Your task to perform on an android device: What's on my calendar tomorrow? Image 0: 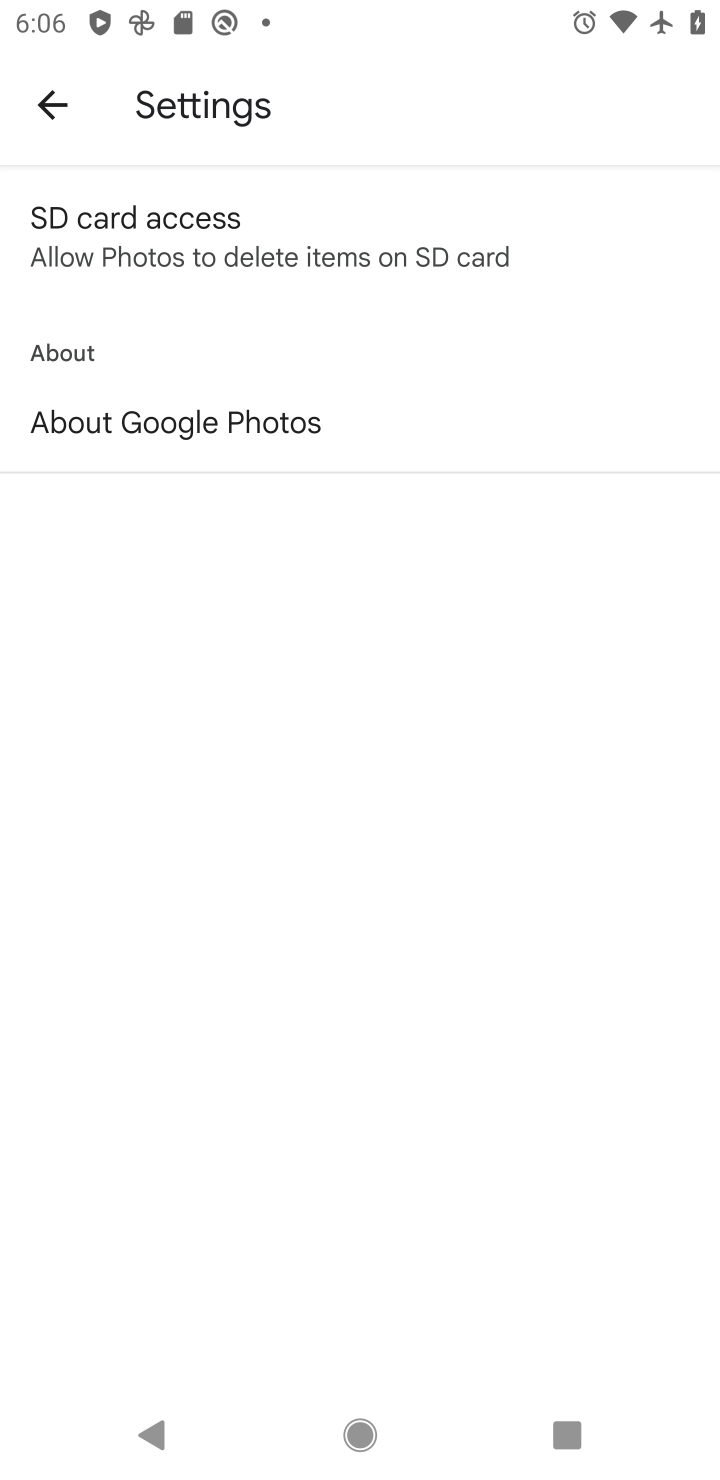
Step 0: press home button
Your task to perform on an android device: What's on my calendar tomorrow? Image 1: 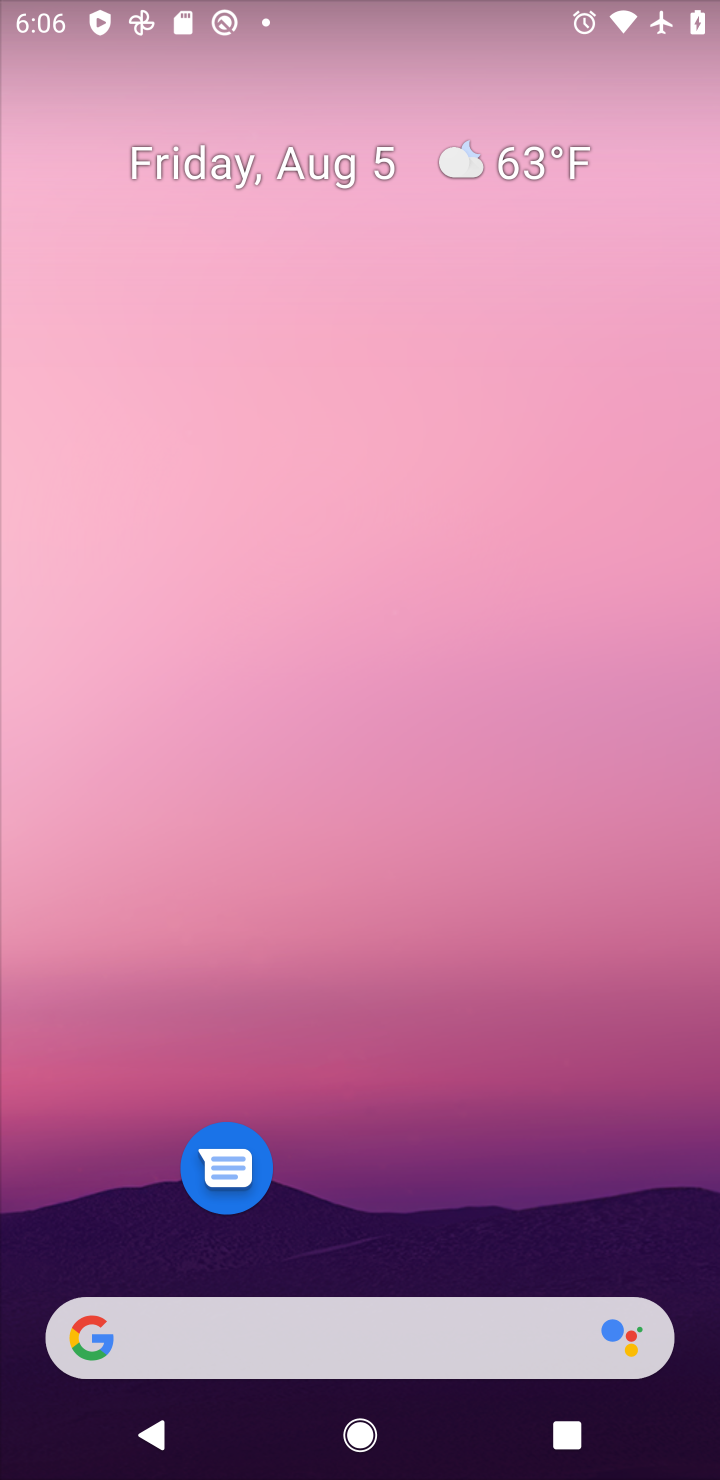
Step 1: drag from (335, 1276) to (458, 132)
Your task to perform on an android device: What's on my calendar tomorrow? Image 2: 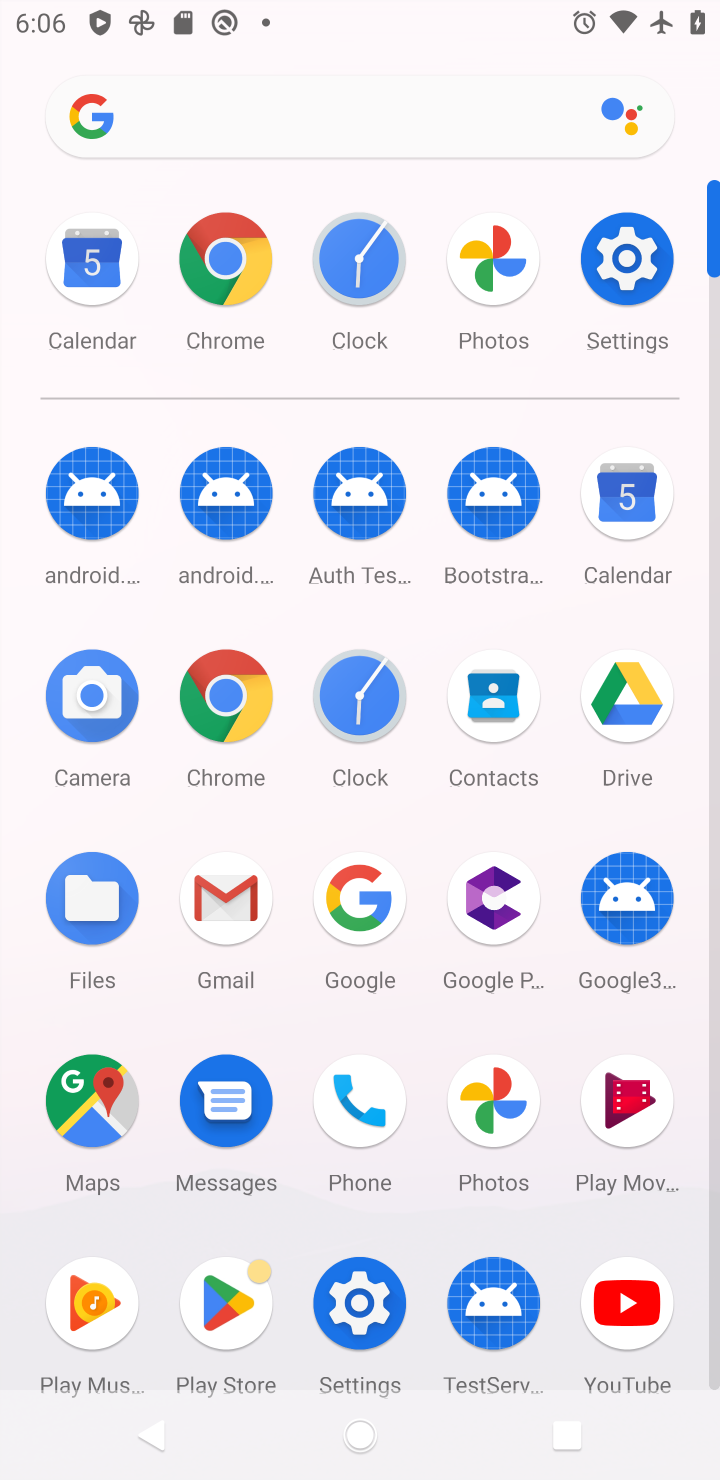
Step 2: drag from (455, 1258) to (411, 1047)
Your task to perform on an android device: What's on my calendar tomorrow? Image 3: 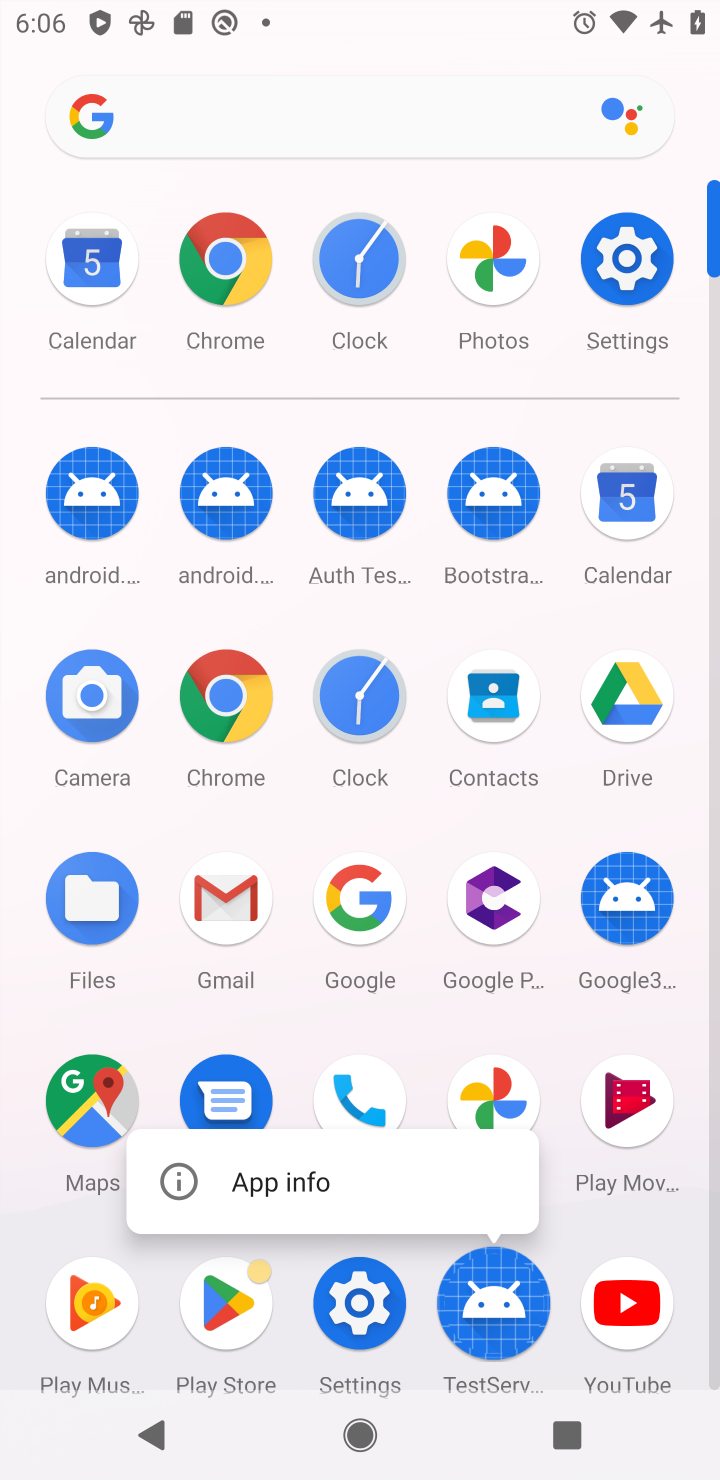
Step 3: click (608, 484)
Your task to perform on an android device: What's on my calendar tomorrow? Image 4: 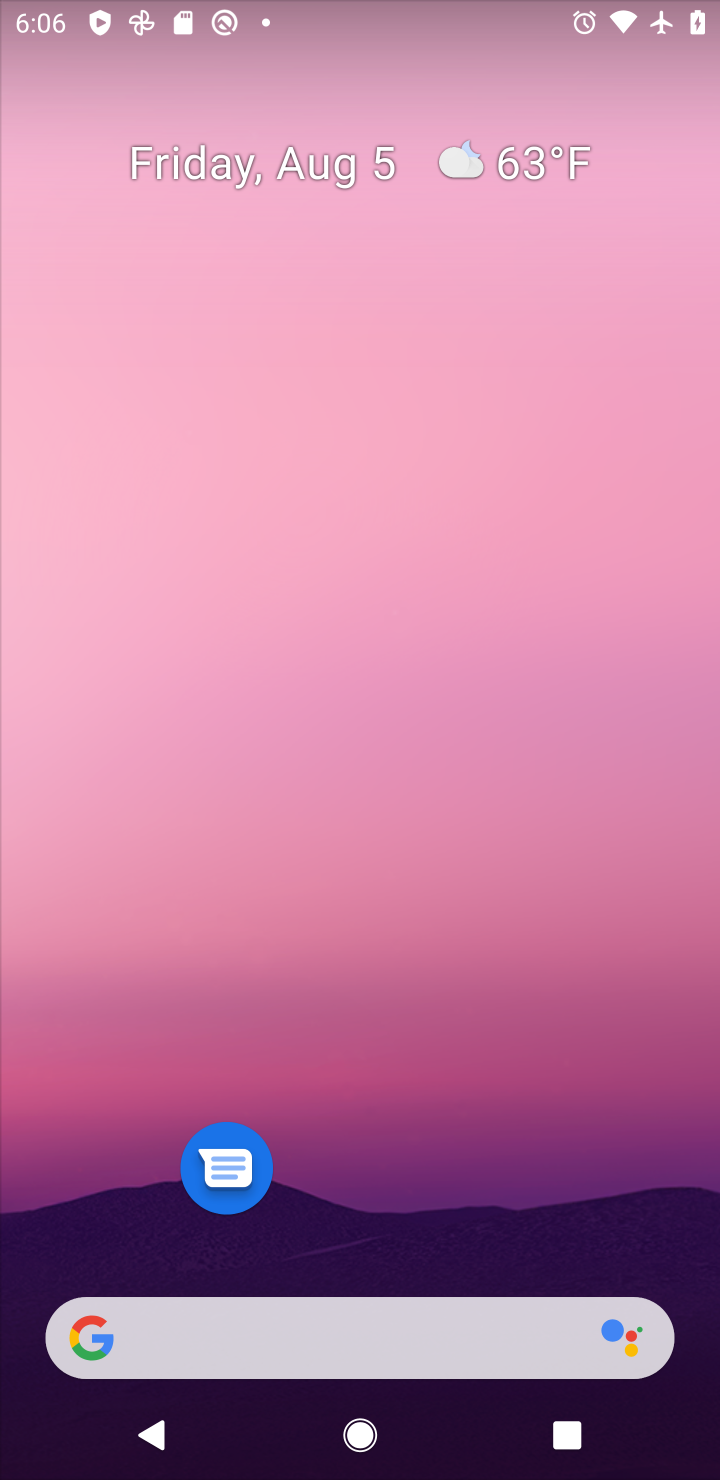
Step 4: drag from (469, 1266) to (572, 335)
Your task to perform on an android device: What's on my calendar tomorrow? Image 5: 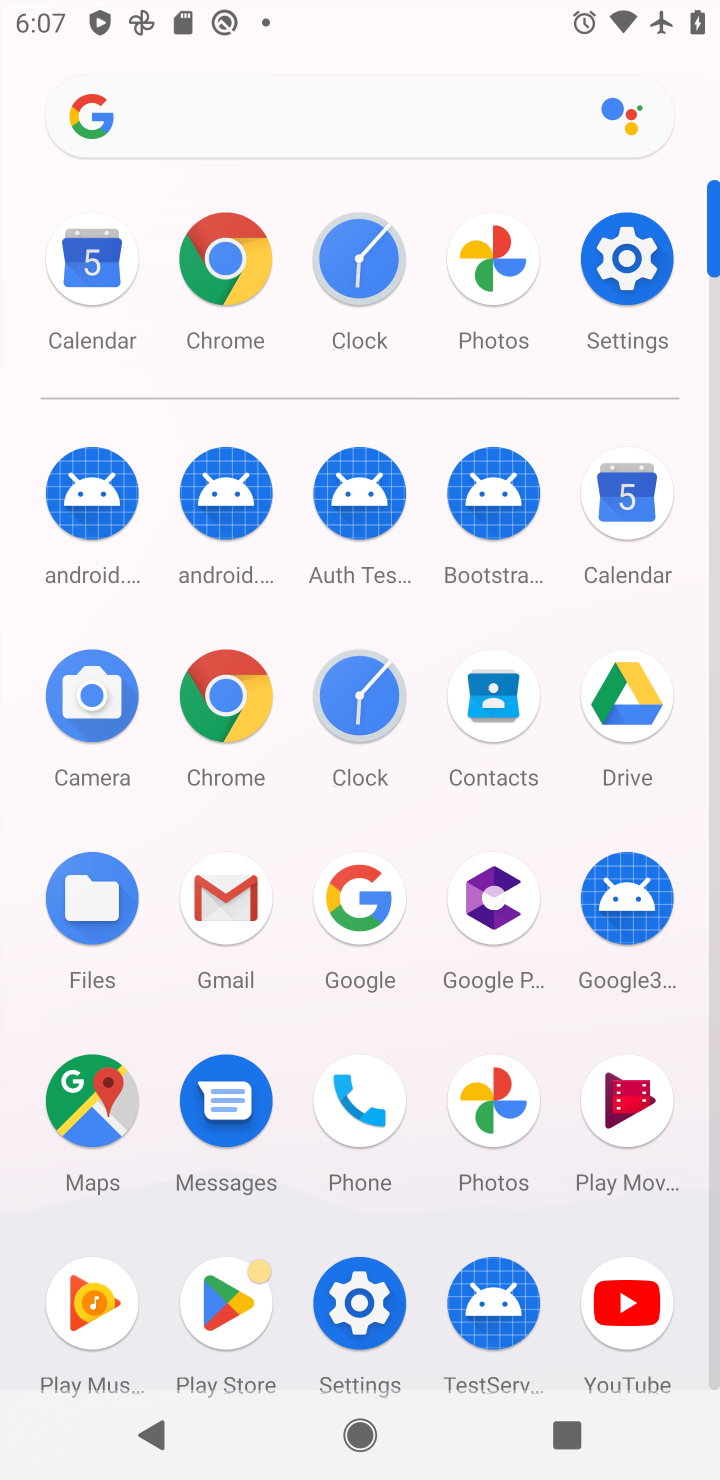
Step 5: click (630, 522)
Your task to perform on an android device: What's on my calendar tomorrow? Image 6: 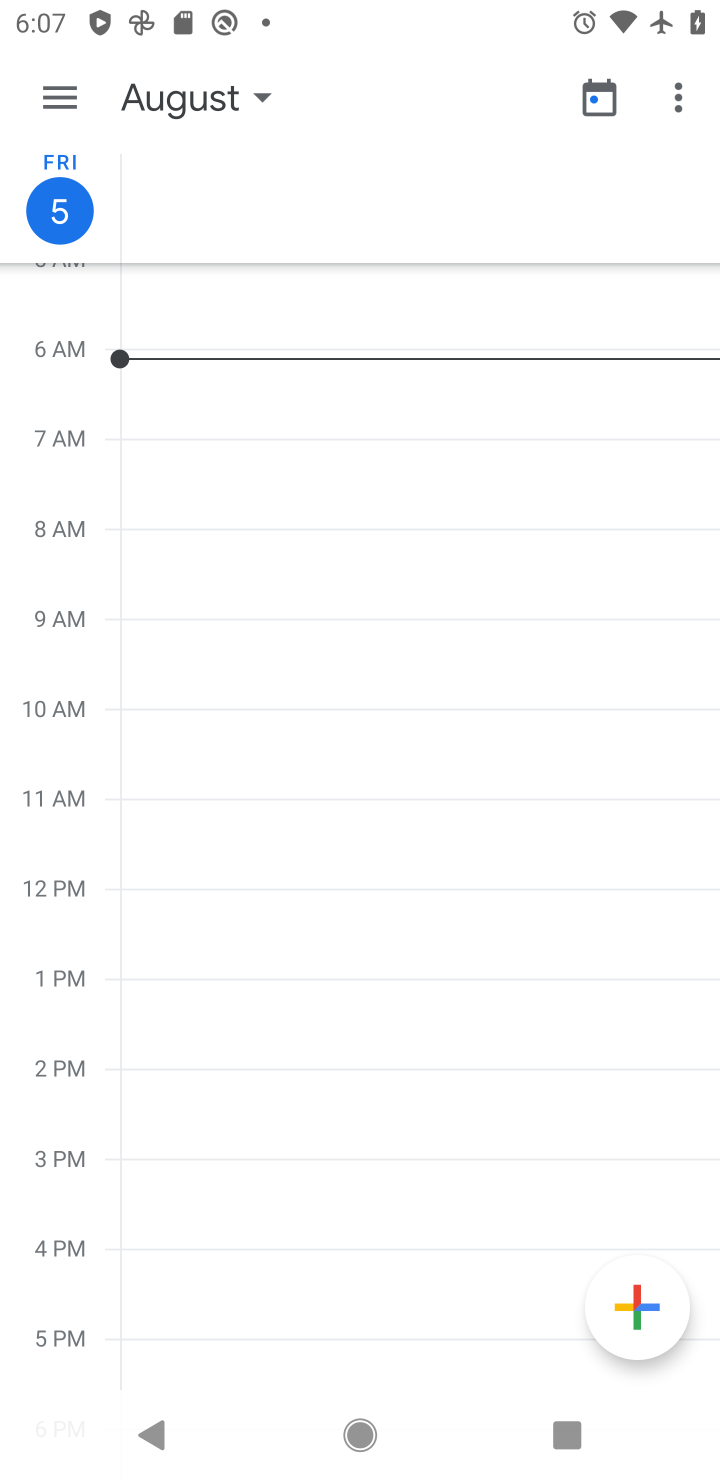
Step 6: click (248, 91)
Your task to perform on an android device: What's on my calendar tomorrow? Image 7: 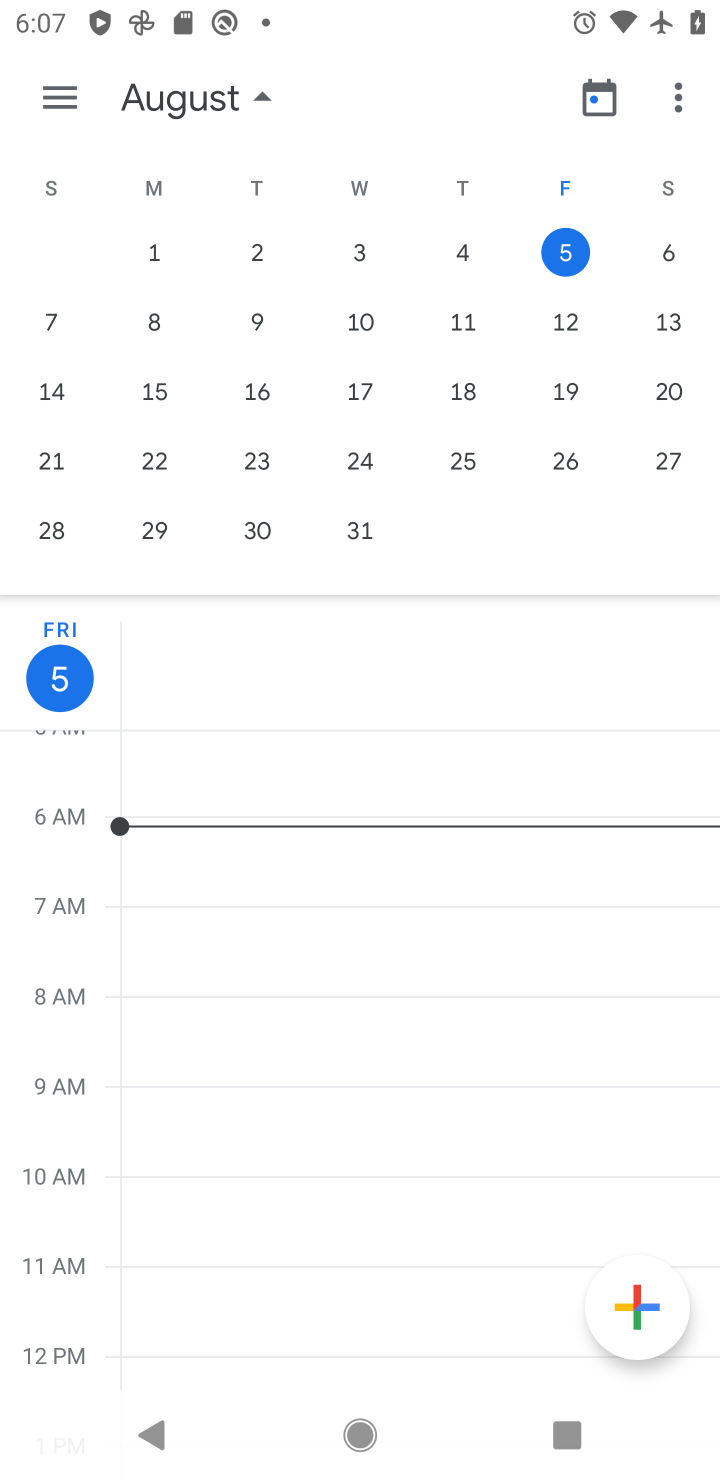
Step 7: click (667, 246)
Your task to perform on an android device: What's on my calendar tomorrow? Image 8: 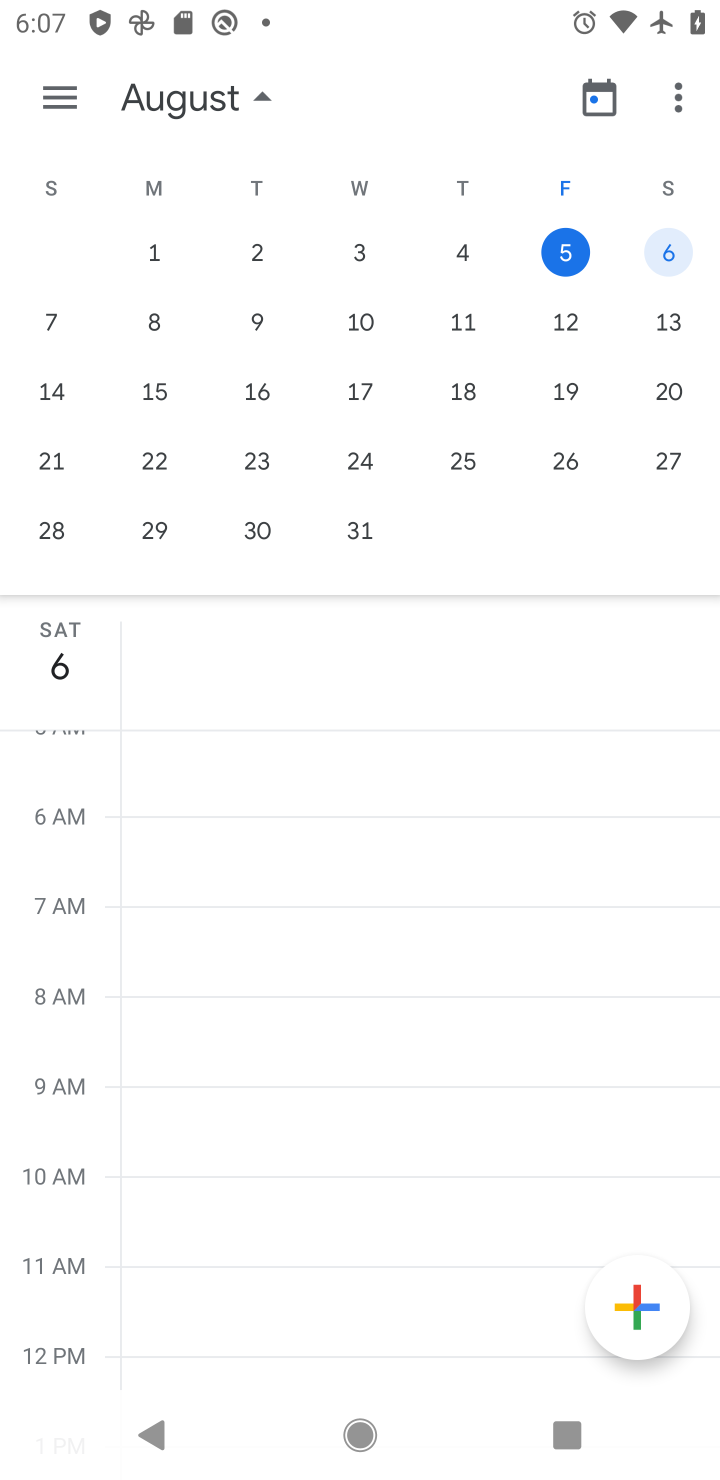
Step 8: task complete